Your task to perform on an android device: Open internet settings Image 0: 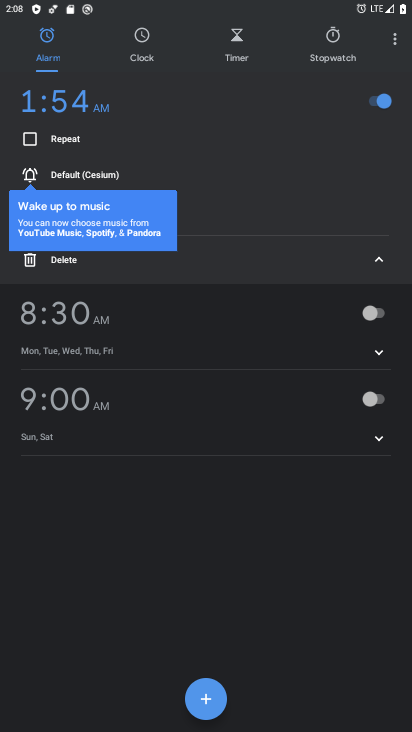
Step 0: press home button
Your task to perform on an android device: Open internet settings Image 1: 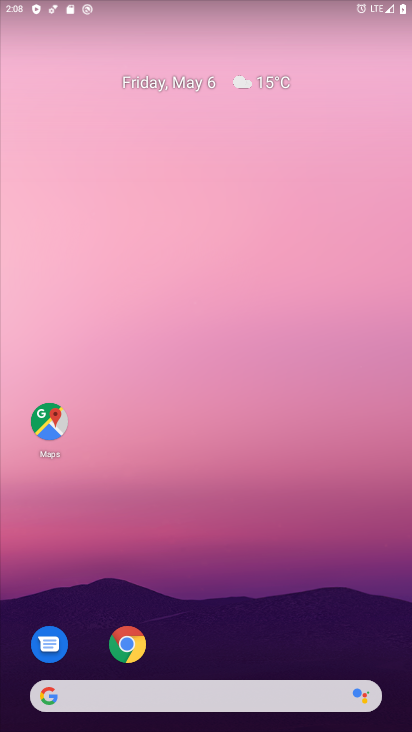
Step 1: drag from (292, 613) to (219, 180)
Your task to perform on an android device: Open internet settings Image 2: 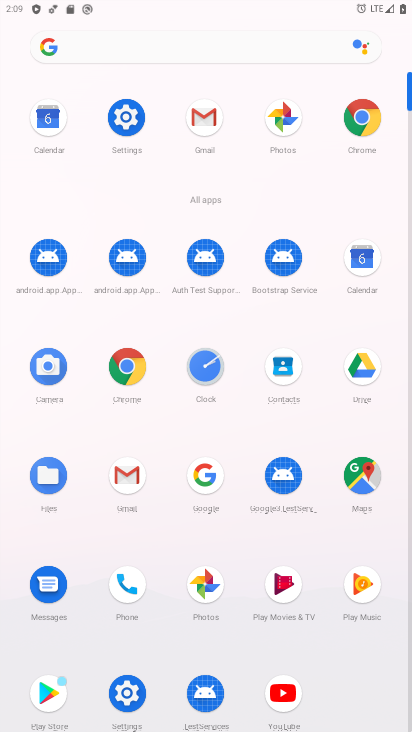
Step 2: click (121, 118)
Your task to perform on an android device: Open internet settings Image 3: 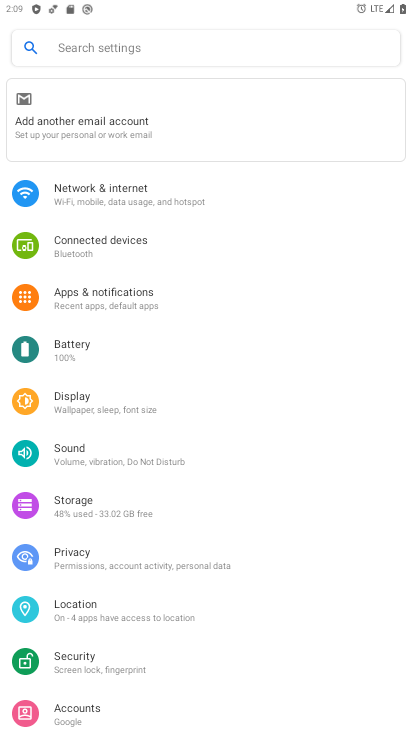
Step 3: click (160, 190)
Your task to perform on an android device: Open internet settings Image 4: 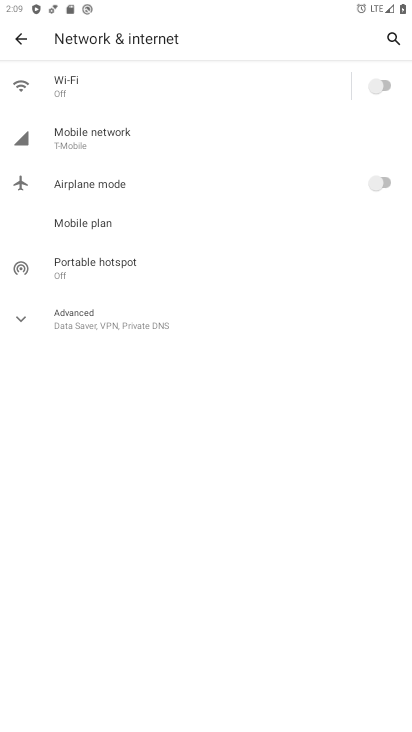
Step 4: task complete